Your task to perform on an android device: open device folders in google photos Image 0: 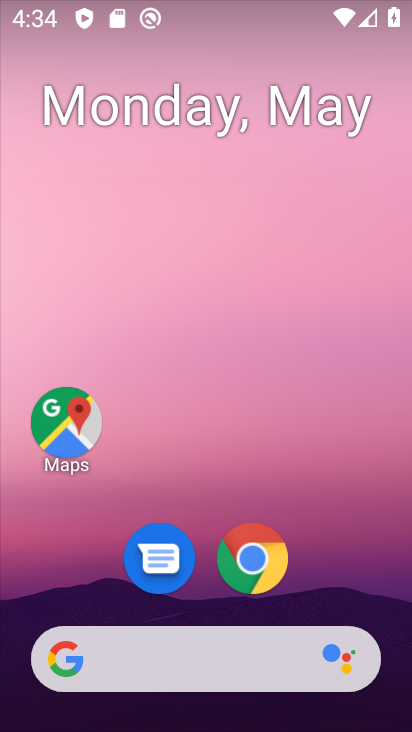
Step 0: drag from (348, 576) to (89, 102)
Your task to perform on an android device: open device folders in google photos Image 1: 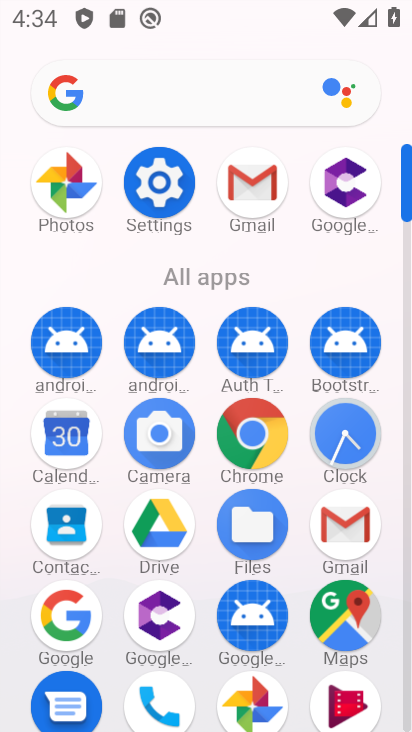
Step 1: click (75, 197)
Your task to perform on an android device: open device folders in google photos Image 2: 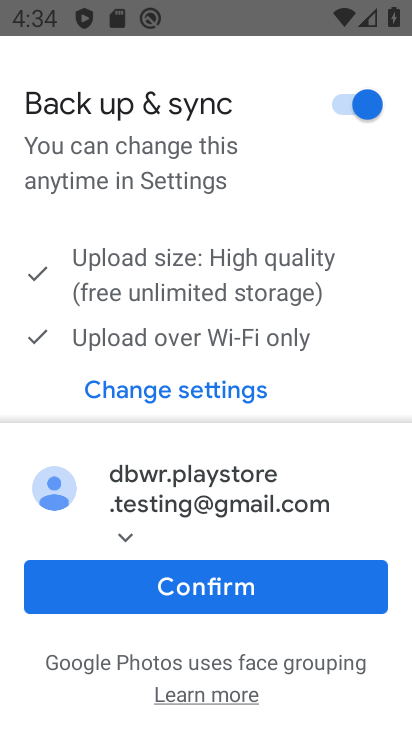
Step 2: click (207, 585)
Your task to perform on an android device: open device folders in google photos Image 3: 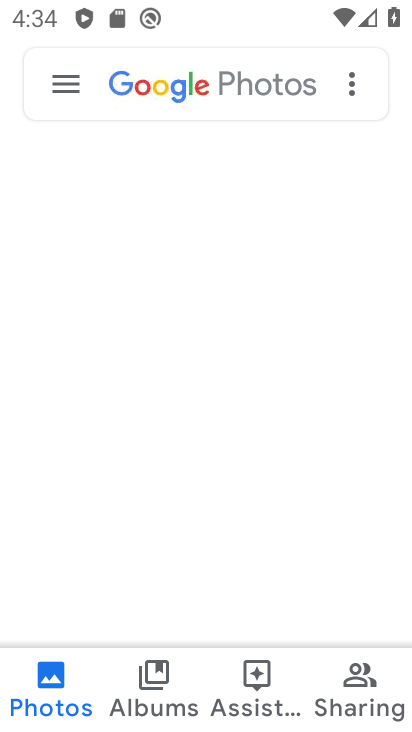
Step 3: click (42, 75)
Your task to perform on an android device: open device folders in google photos Image 4: 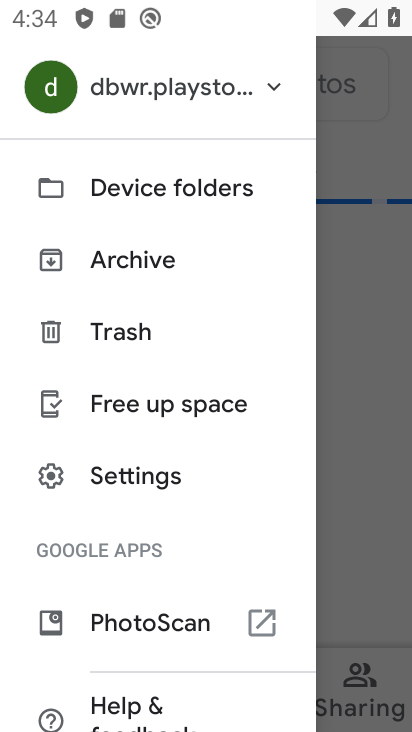
Step 4: click (118, 190)
Your task to perform on an android device: open device folders in google photos Image 5: 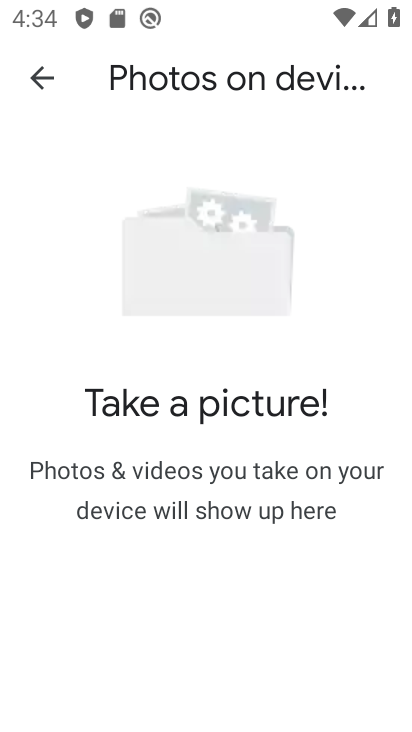
Step 5: task complete